Your task to perform on an android device: Open notification settings Image 0: 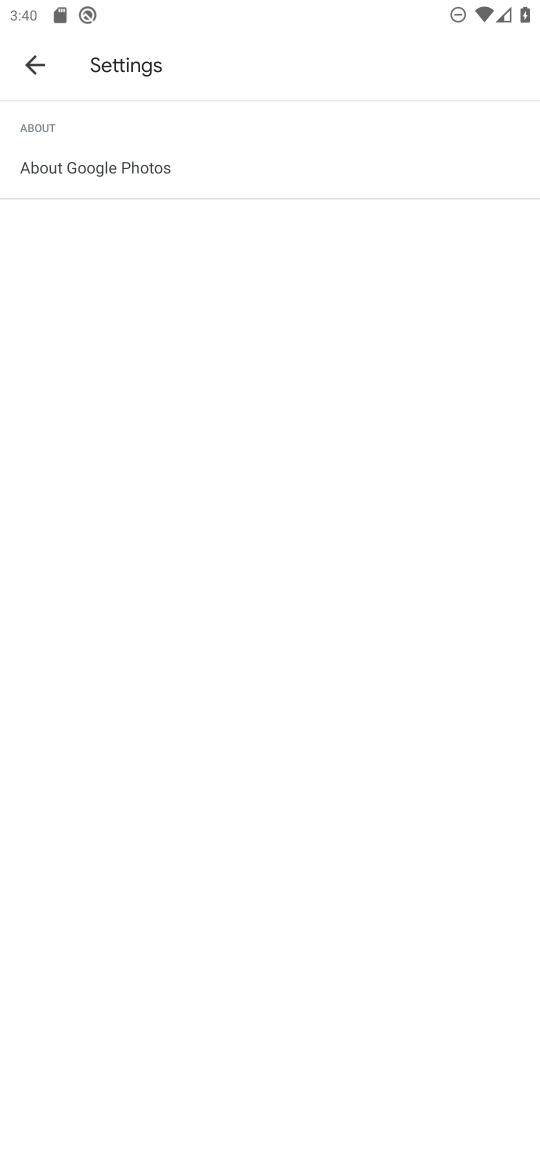
Step 0: press home button
Your task to perform on an android device: Open notification settings Image 1: 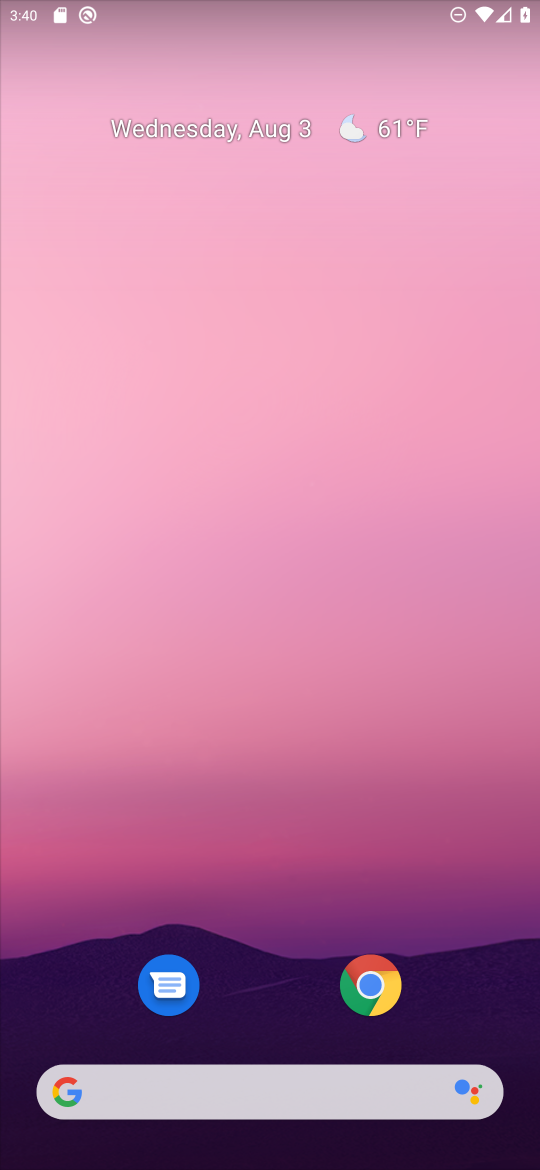
Step 1: drag from (264, 852) to (321, 1)
Your task to perform on an android device: Open notification settings Image 2: 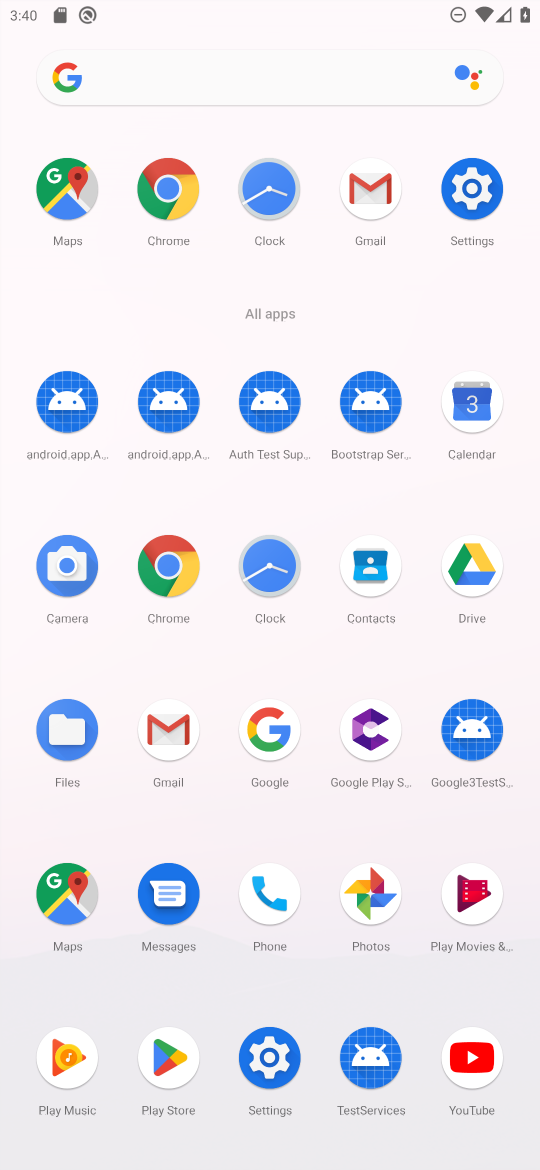
Step 2: click (481, 195)
Your task to perform on an android device: Open notification settings Image 3: 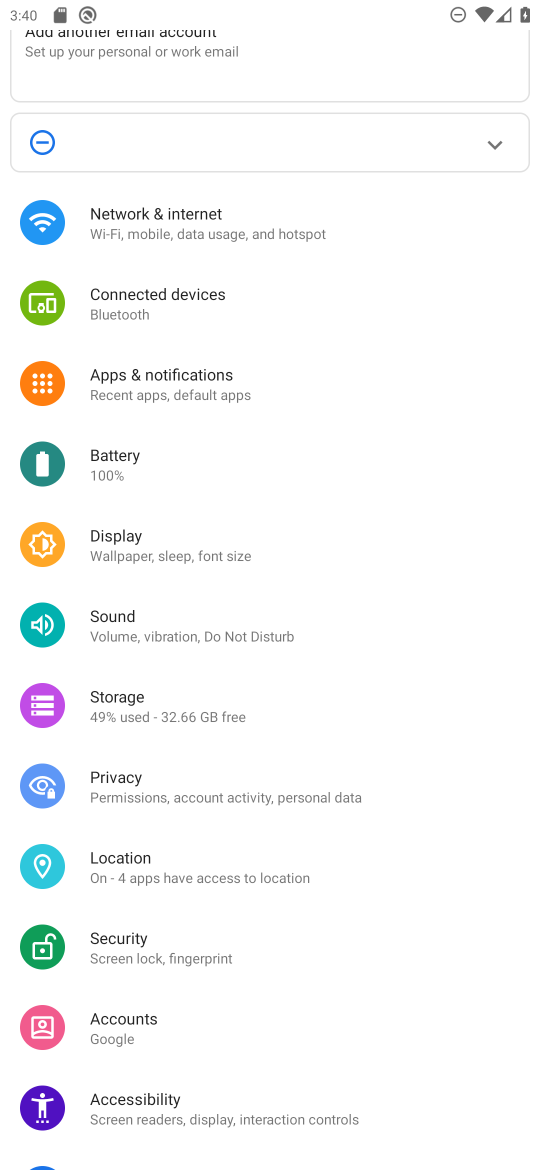
Step 3: click (191, 385)
Your task to perform on an android device: Open notification settings Image 4: 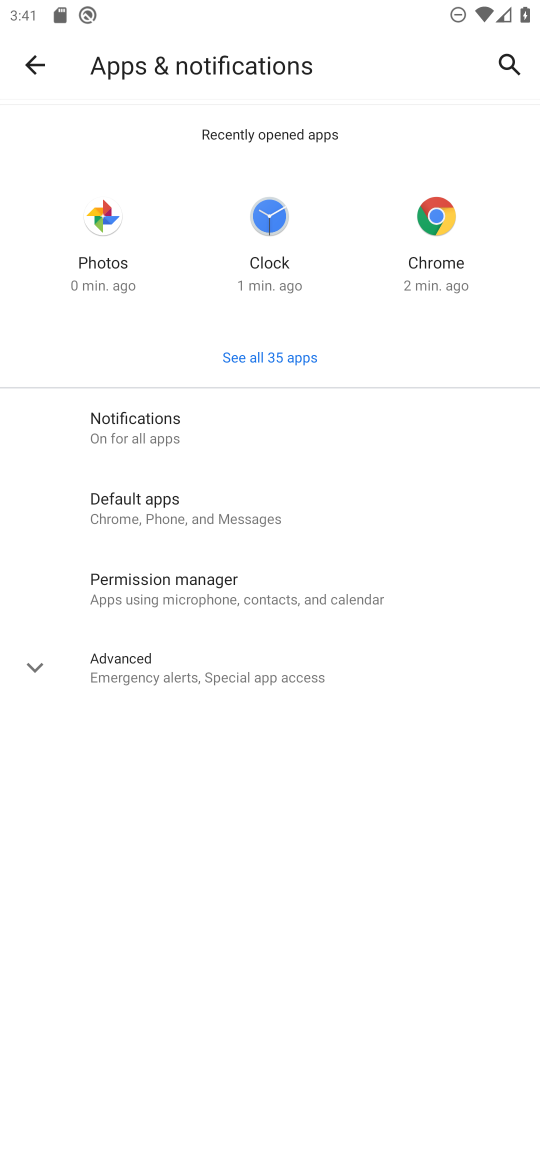
Step 4: click (386, 402)
Your task to perform on an android device: Open notification settings Image 5: 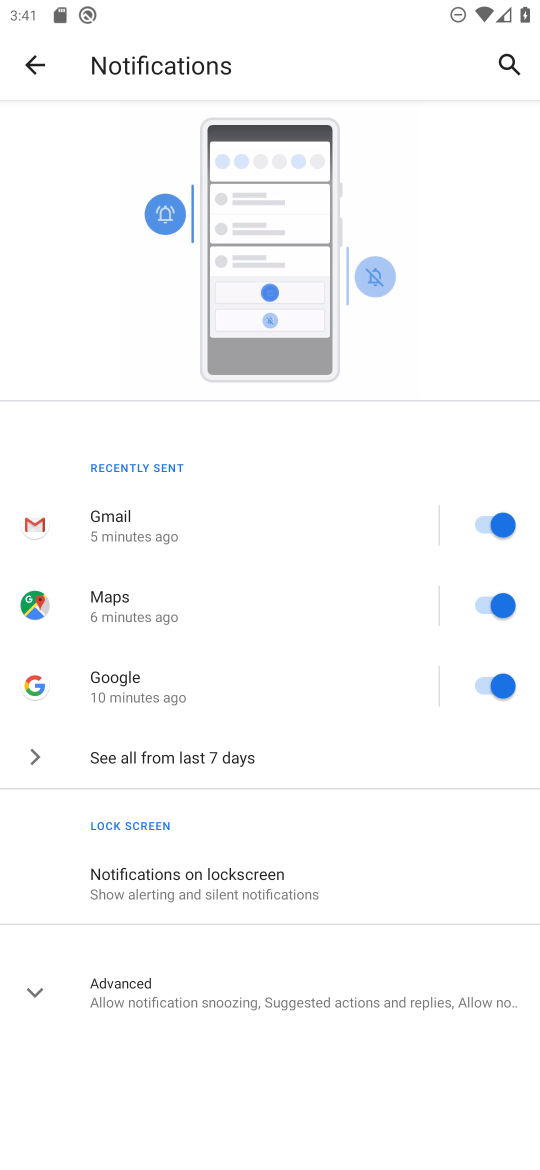
Step 5: task complete